Your task to perform on an android device: Go to Google maps Image 0: 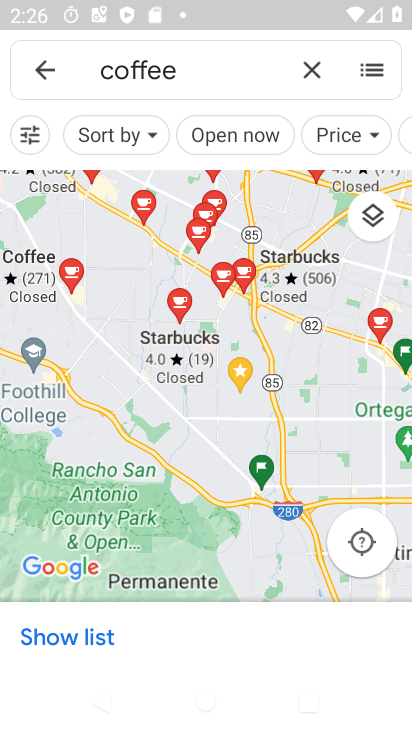
Step 0: press home button
Your task to perform on an android device: Go to Google maps Image 1: 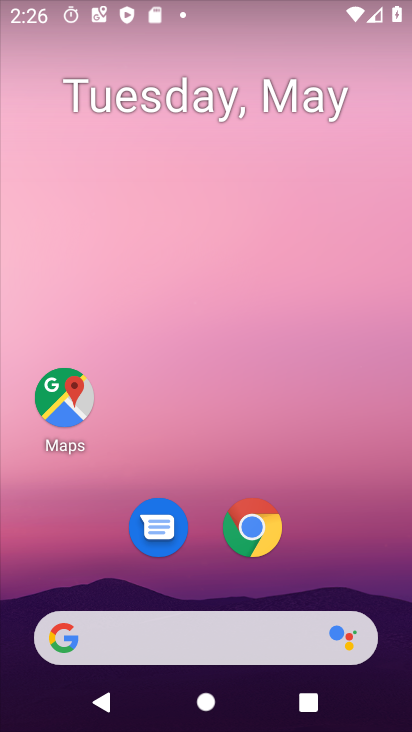
Step 1: drag from (251, 655) to (224, 219)
Your task to perform on an android device: Go to Google maps Image 2: 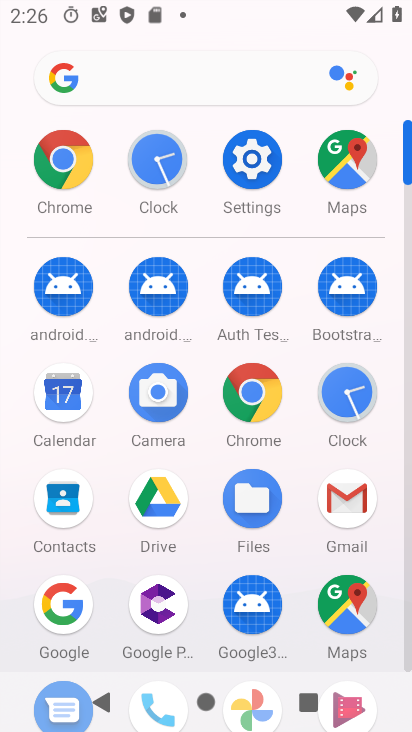
Step 2: click (344, 592)
Your task to perform on an android device: Go to Google maps Image 3: 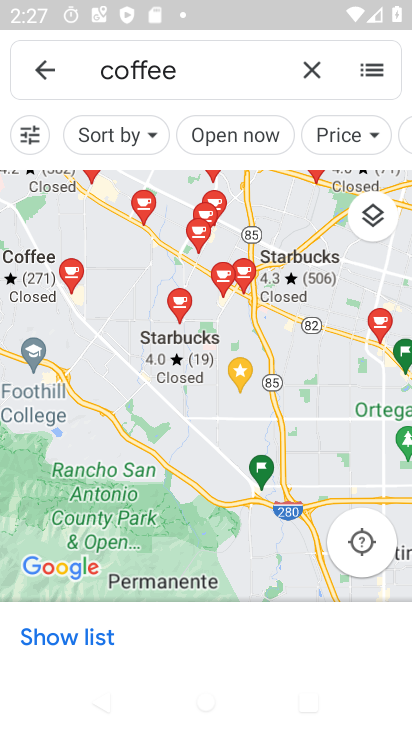
Step 3: click (36, 75)
Your task to perform on an android device: Go to Google maps Image 4: 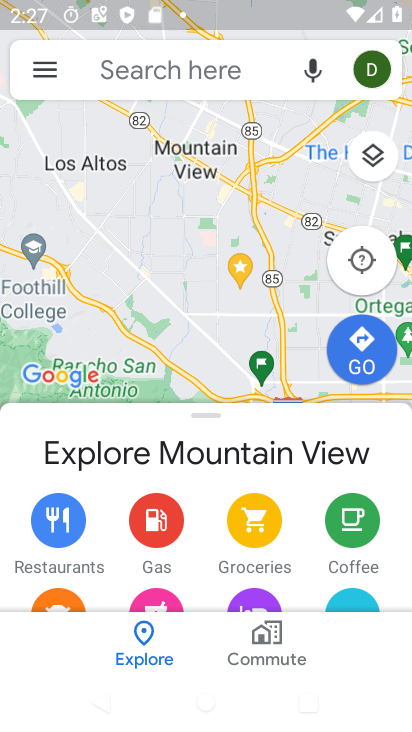
Step 4: click (167, 286)
Your task to perform on an android device: Go to Google maps Image 5: 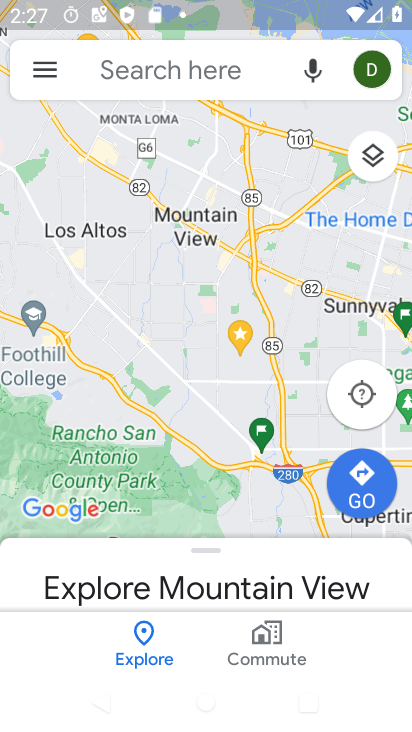
Step 5: task complete